Your task to perform on an android device: Empty the shopping cart on costco. Search for lg ultragear on costco, select the first entry, and add it to the cart. Image 0: 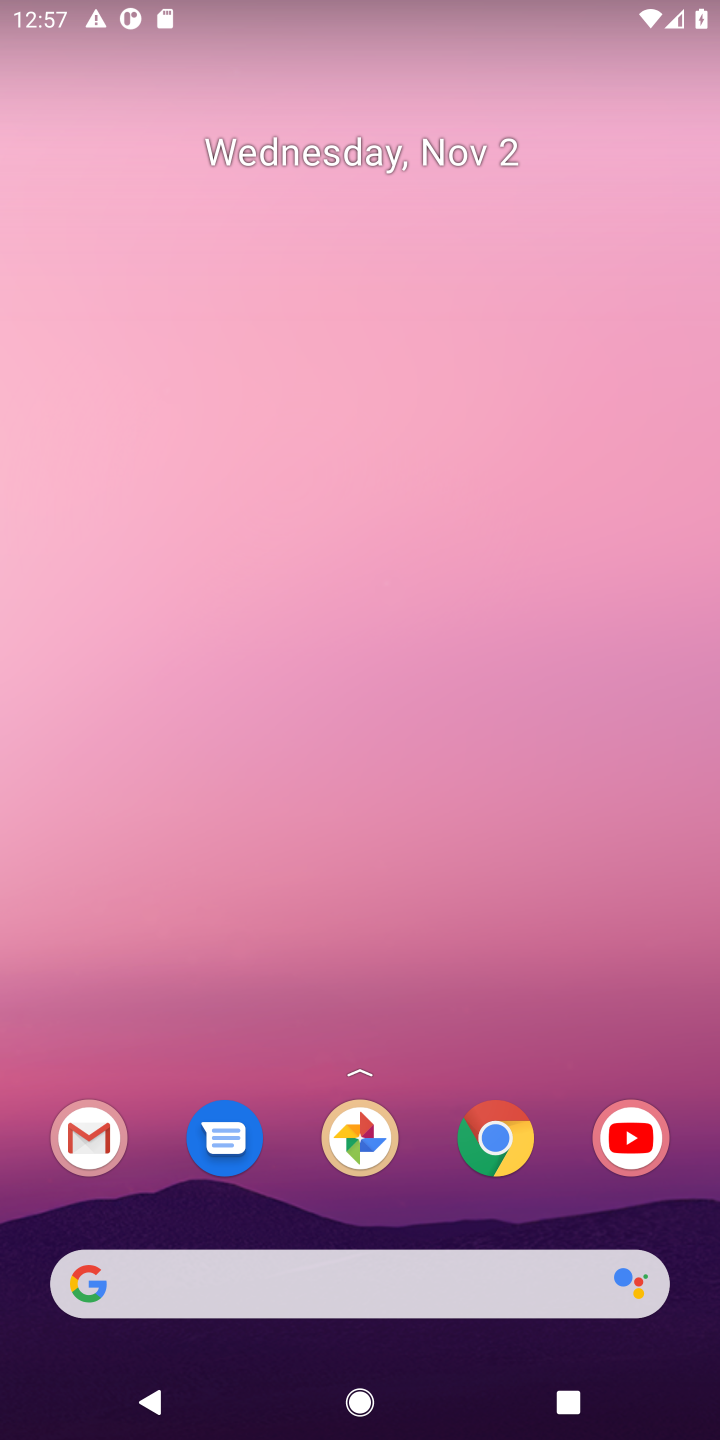
Step 0: click (493, 1138)
Your task to perform on an android device: Empty the shopping cart on costco. Search for lg ultragear on costco, select the first entry, and add it to the cart. Image 1: 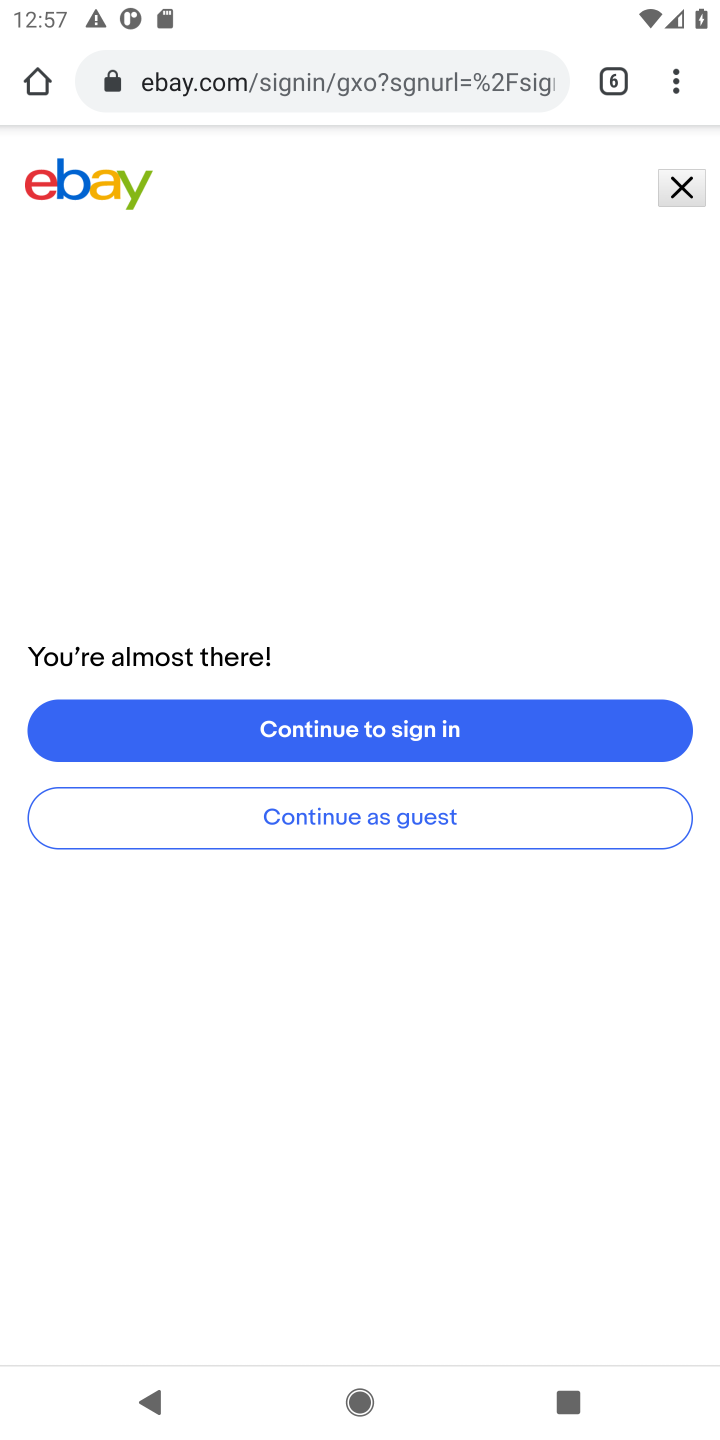
Step 1: click (684, 188)
Your task to perform on an android device: Empty the shopping cart on costco. Search for lg ultragear on costco, select the first entry, and add it to the cart. Image 2: 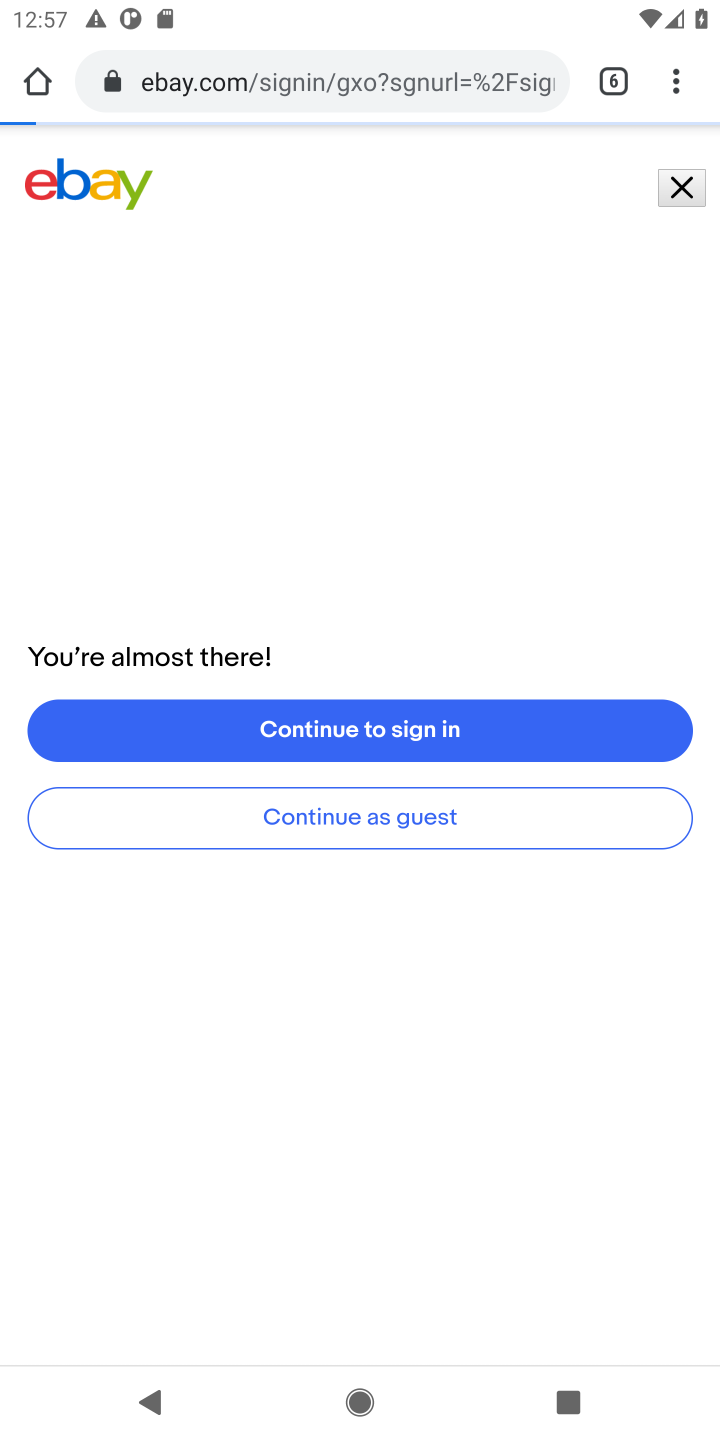
Step 2: click (619, 80)
Your task to perform on an android device: Empty the shopping cart on costco. Search for lg ultragear on costco, select the first entry, and add it to the cart. Image 3: 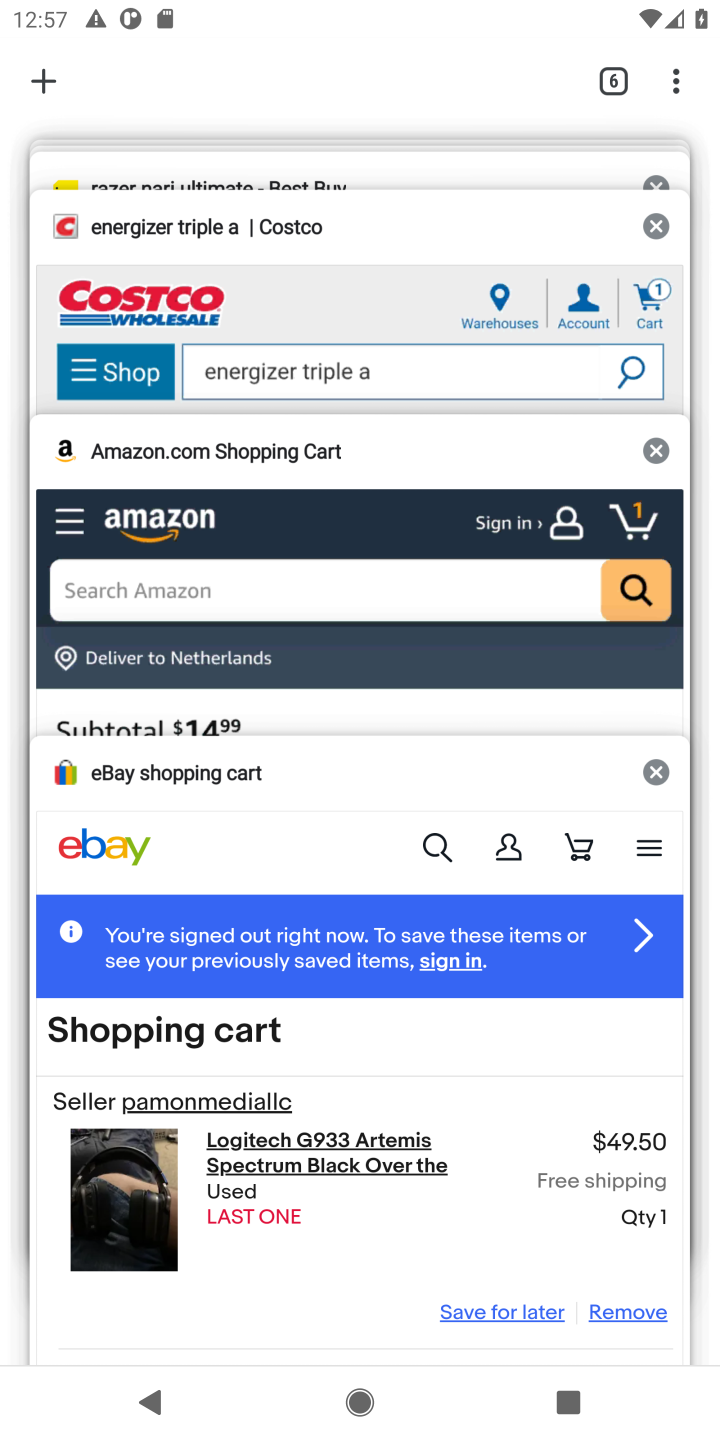
Step 3: click (410, 311)
Your task to perform on an android device: Empty the shopping cart on costco. Search for lg ultragear on costco, select the first entry, and add it to the cart. Image 4: 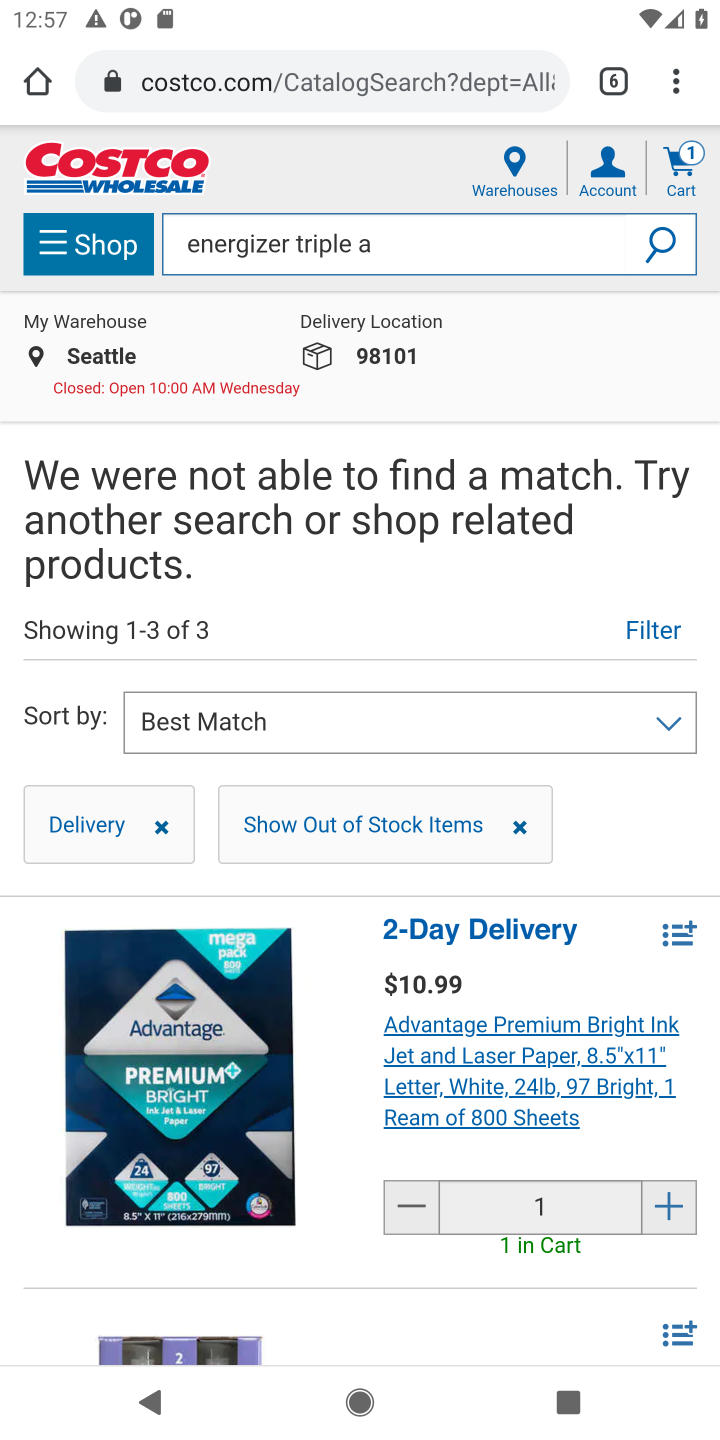
Step 4: click (452, 231)
Your task to perform on an android device: Empty the shopping cart on costco. Search for lg ultragear on costco, select the first entry, and add it to the cart. Image 5: 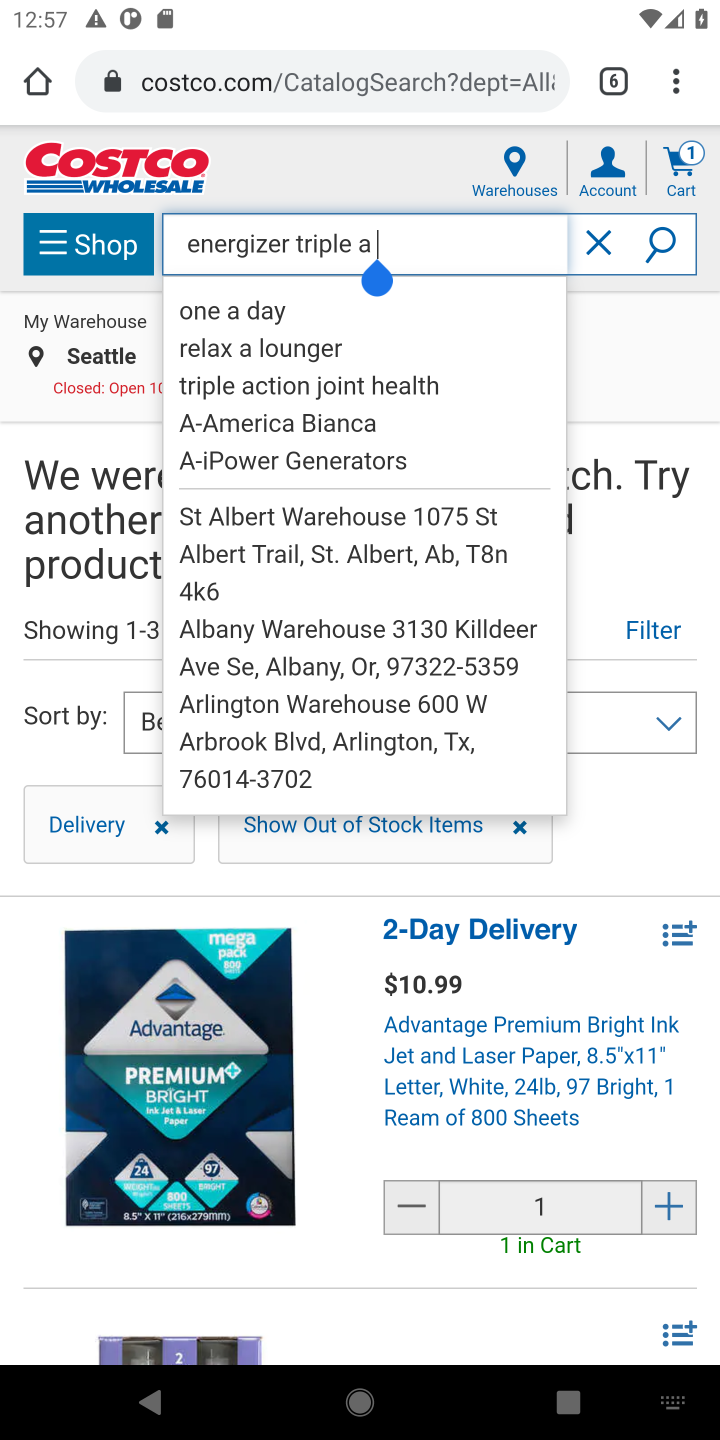
Step 5: click (345, 242)
Your task to perform on an android device: Empty the shopping cart on costco. Search for lg ultragear on costco, select the first entry, and add it to the cart. Image 6: 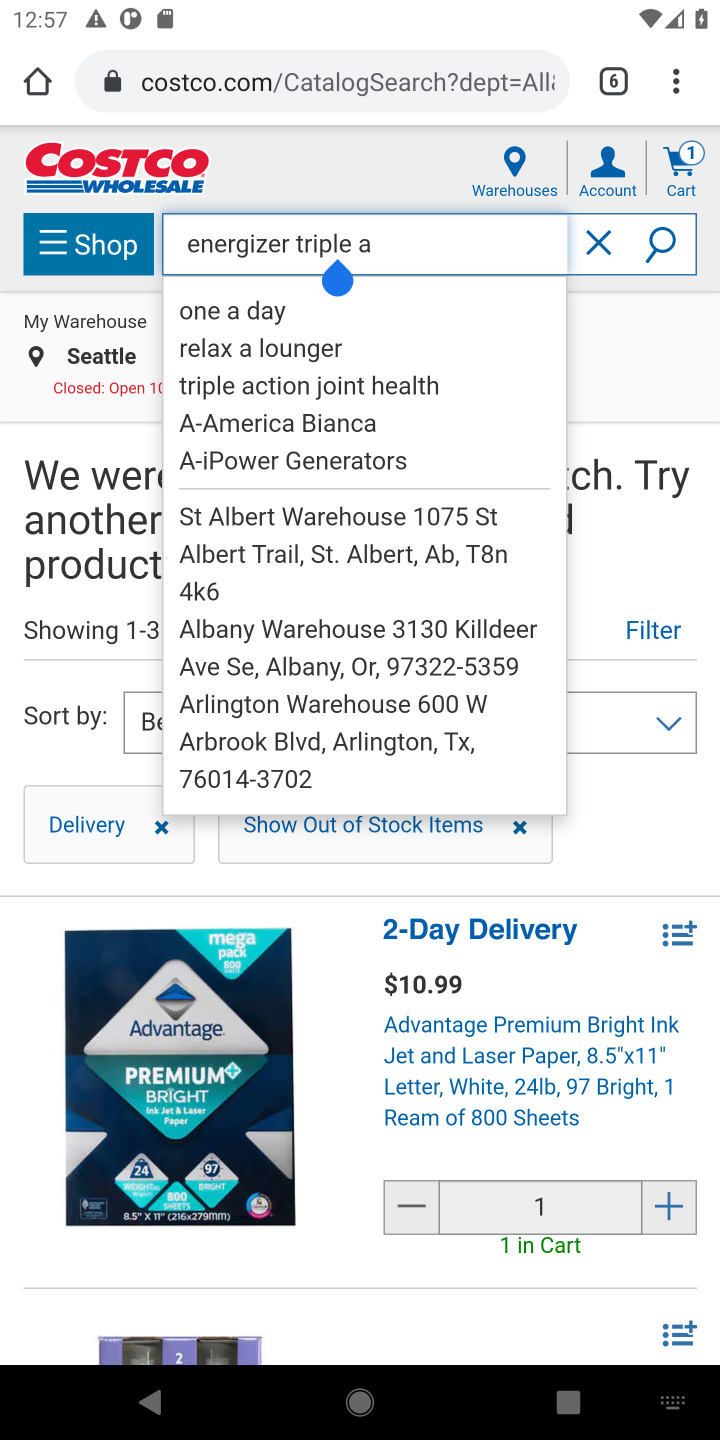
Step 6: click (592, 242)
Your task to perform on an android device: Empty the shopping cart on costco. Search for lg ultragear on costco, select the first entry, and add it to the cart. Image 7: 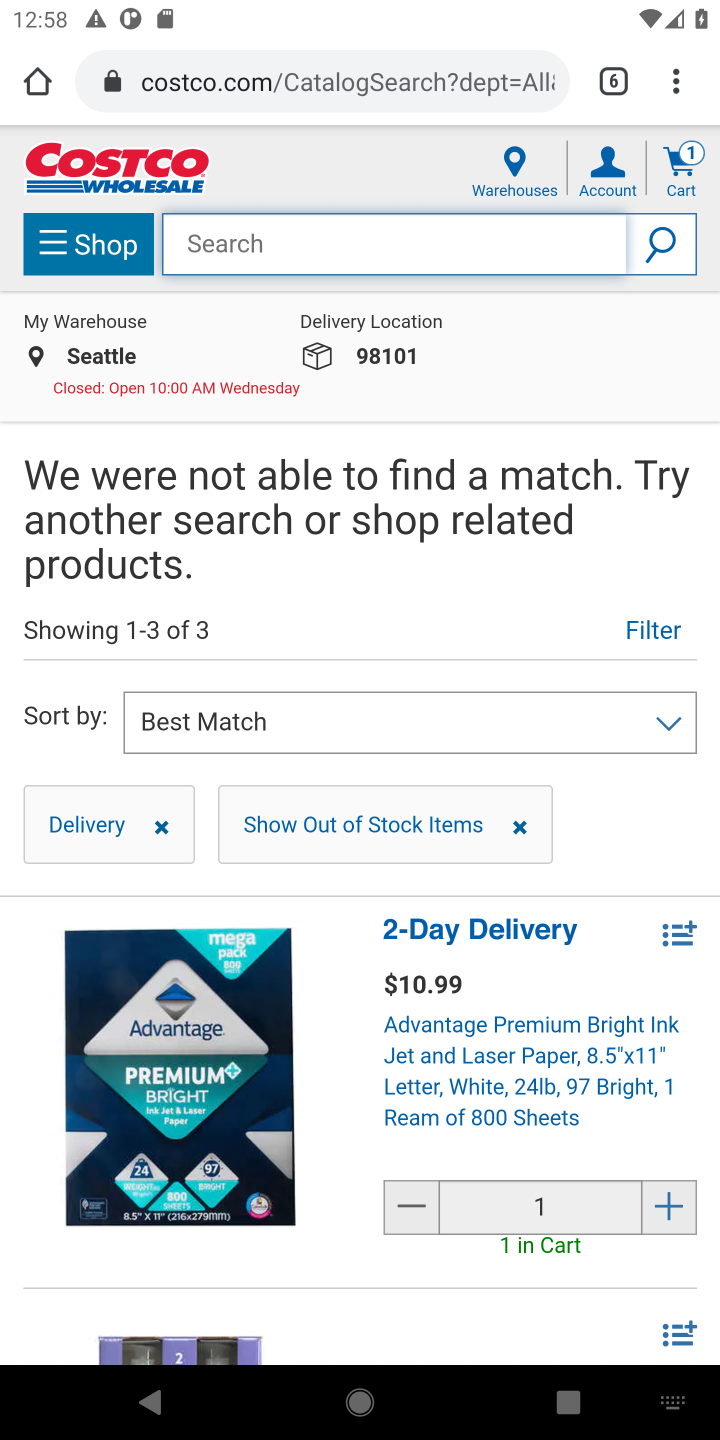
Step 7: type "lg ultragear"
Your task to perform on an android device: Empty the shopping cart on costco. Search for lg ultragear on costco, select the first entry, and add it to the cart. Image 8: 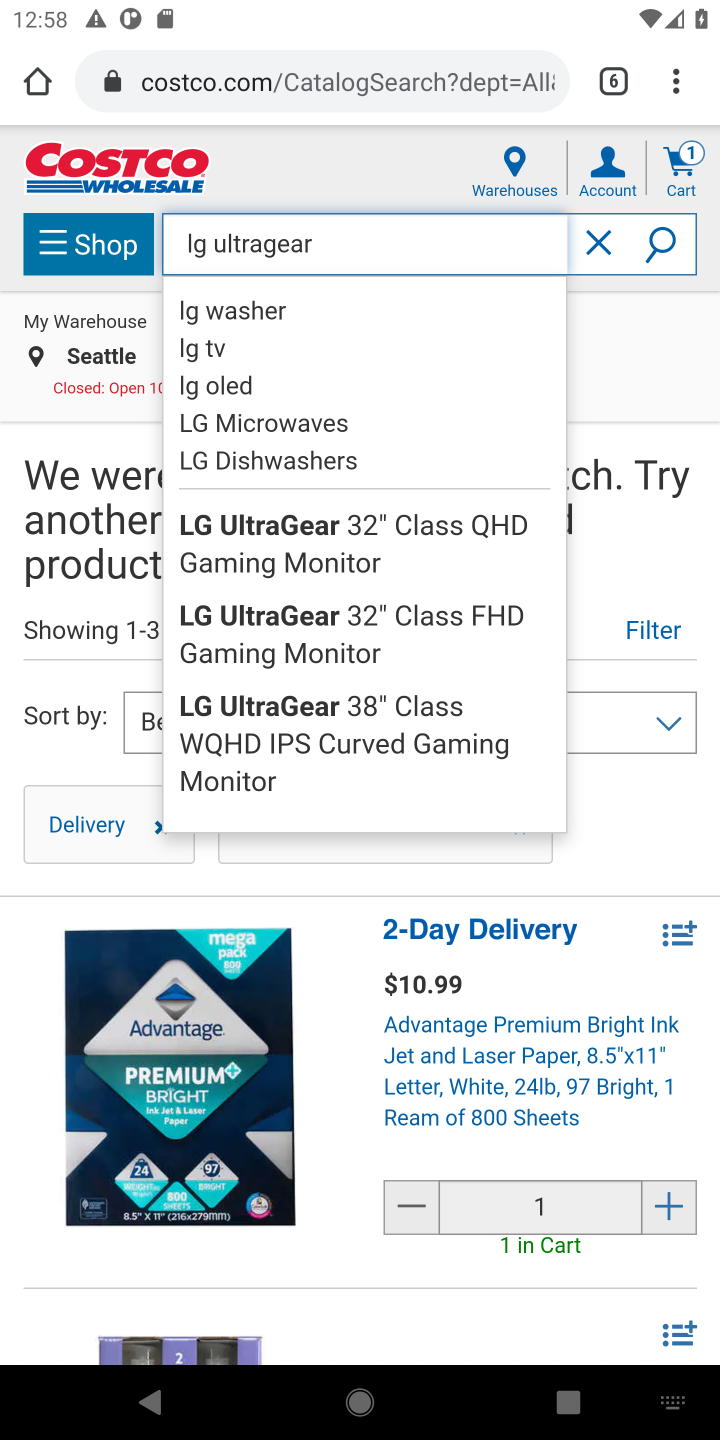
Step 8: click (244, 527)
Your task to perform on an android device: Empty the shopping cart on costco. Search for lg ultragear on costco, select the first entry, and add it to the cart. Image 9: 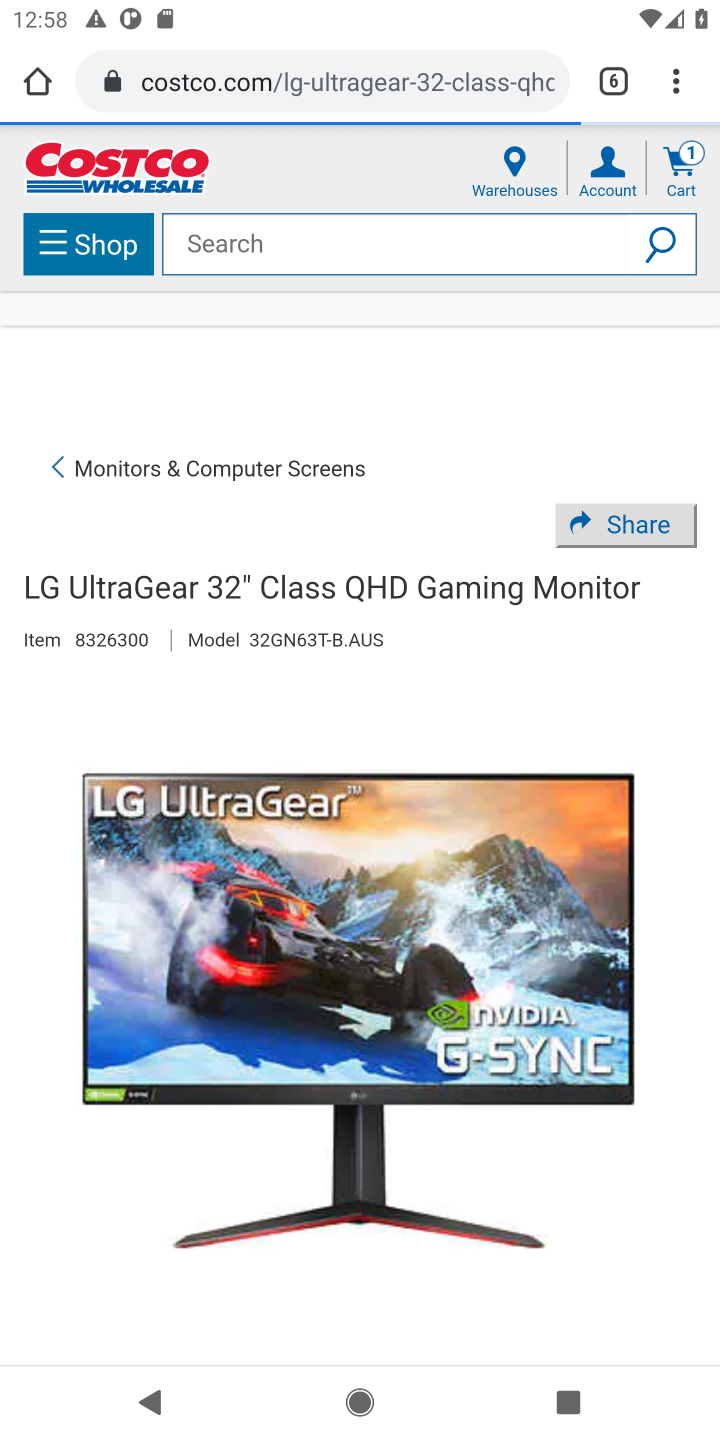
Step 9: drag from (143, 1247) to (345, 243)
Your task to perform on an android device: Empty the shopping cart on costco. Search for lg ultragear on costco, select the first entry, and add it to the cart. Image 10: 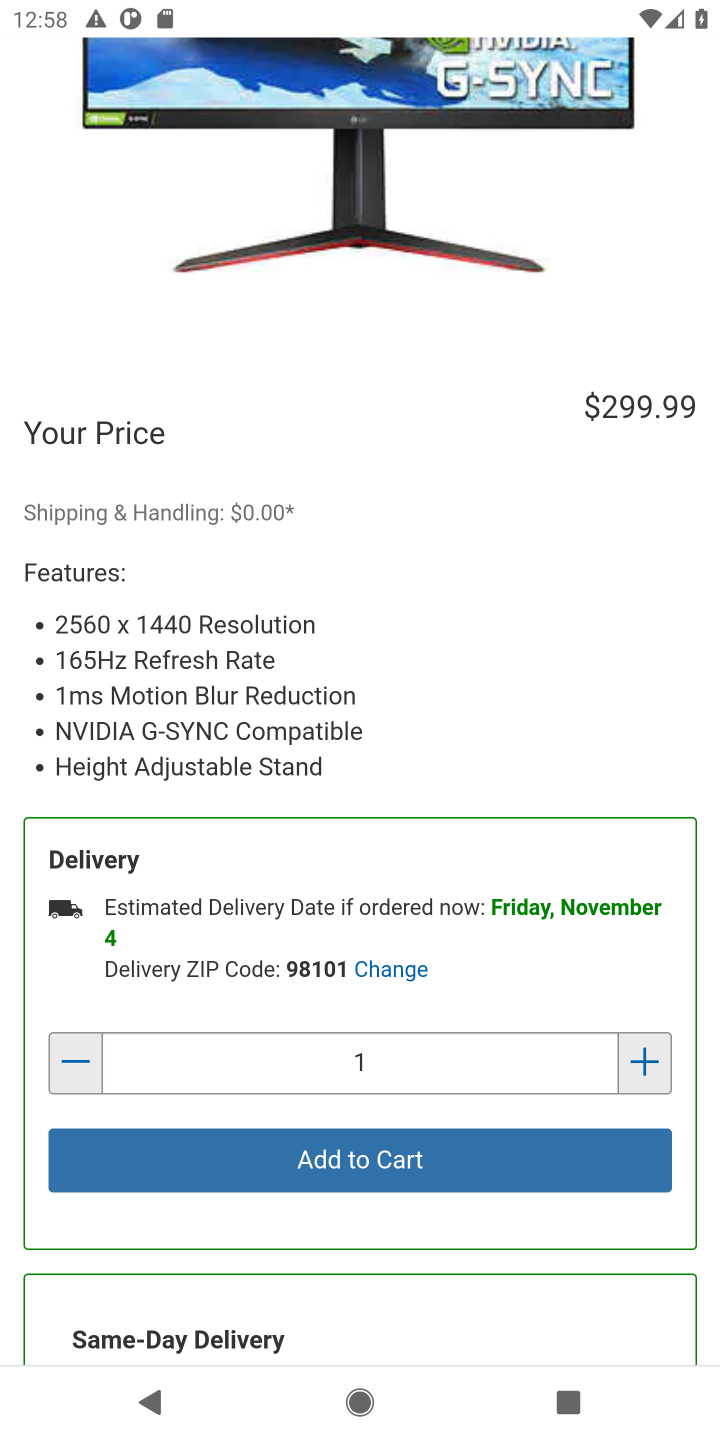
Step 10: click (365, 1153)
Your task to perform on an android device: Empty the shopping cart on costco. Search for lg ultragear on costco, select the first entry, and add it to the cart. Image 11: 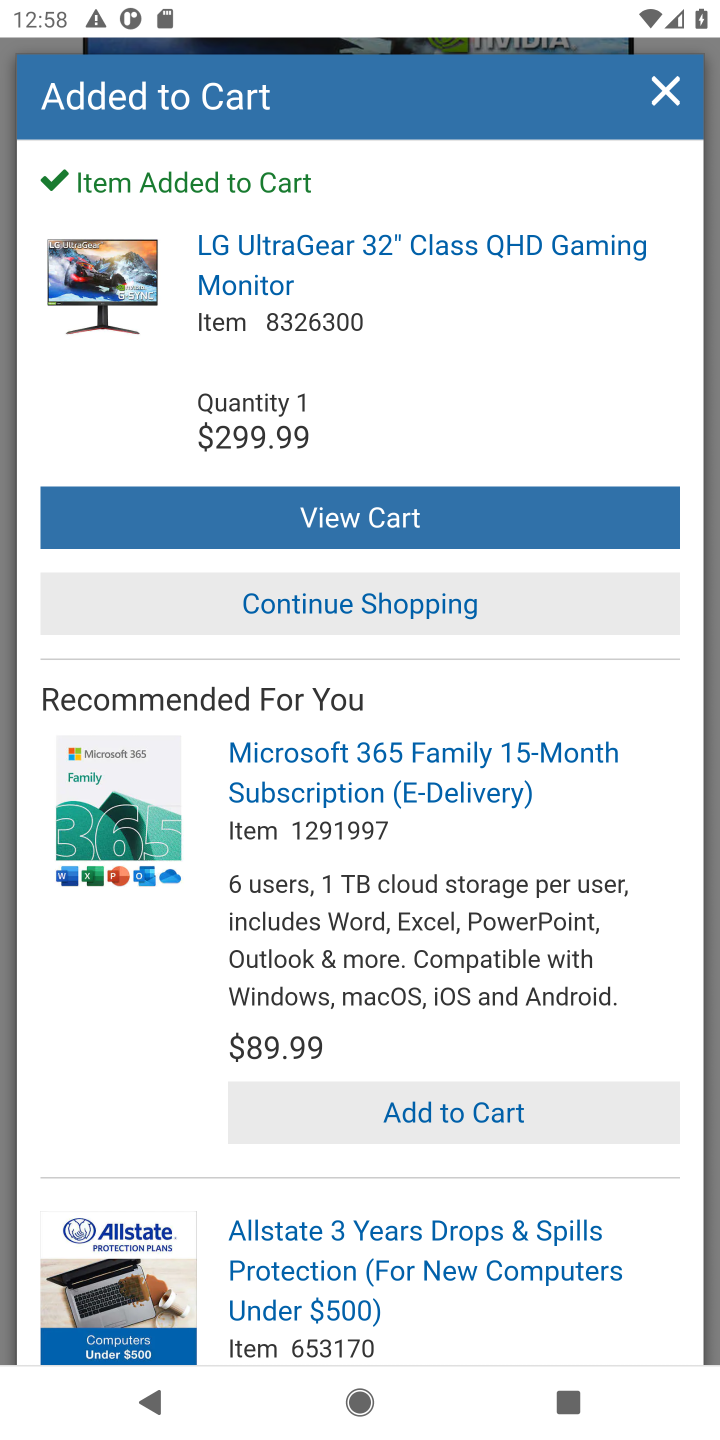
Step 11: task complete